Your task to perform on an android device: Go to network settings Image 0: 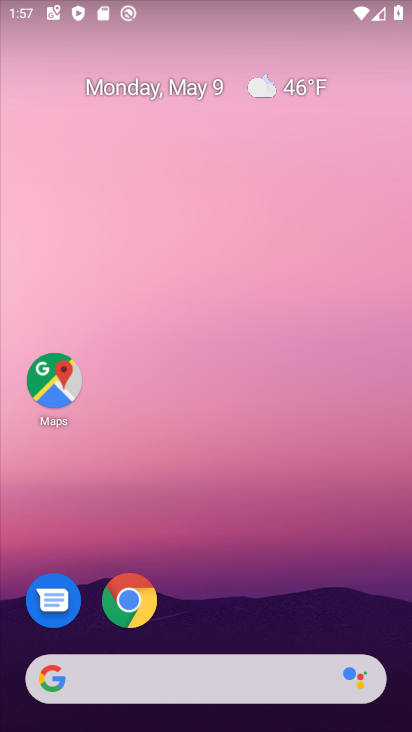
Step 0: drag from (195, 622) to (241, 150)
Your task to perform on an android device: Go to network settings Image 1: 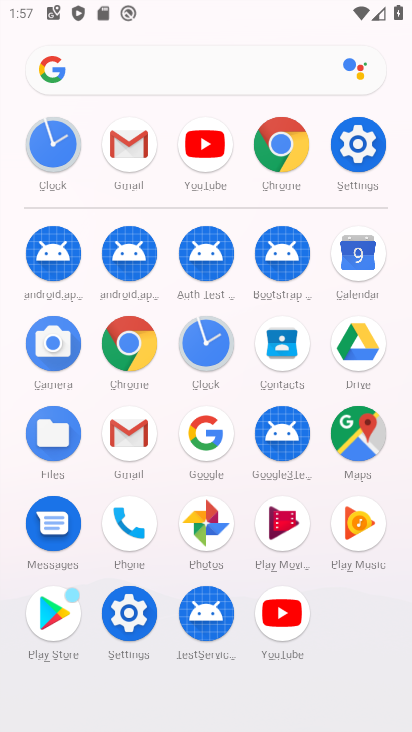
Step 1: click (350, 165)
Your task to perform on an android device: Go to network settings Image 2: 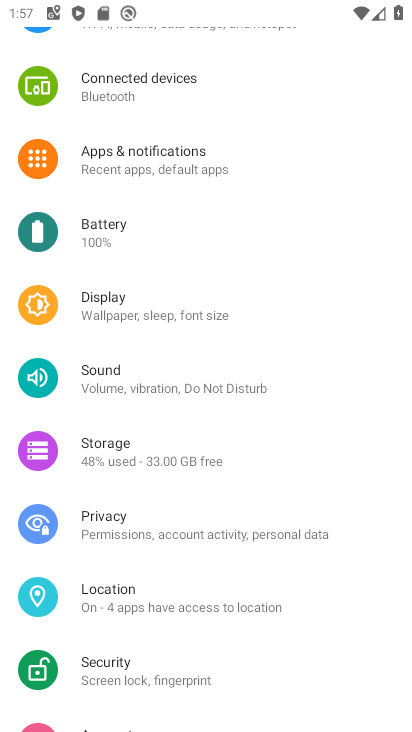
Step 2: drag from (261, 133) to (210, 710)
Your task to perform on an android device: Go to network settings Image 3: 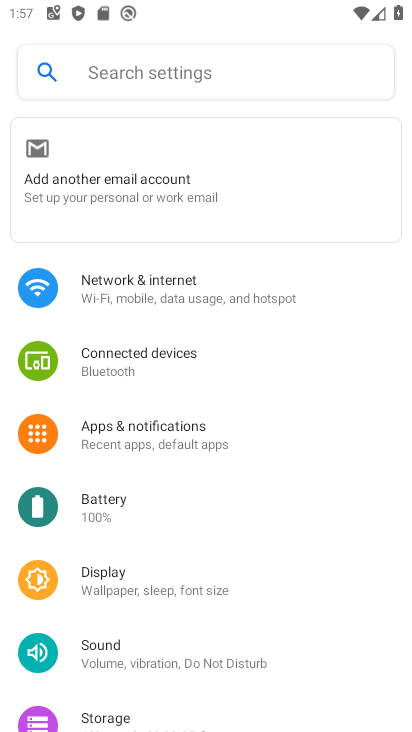
Step 3: click (154, 300)
Your task to perform on an android device: Go to network settings Image 4: 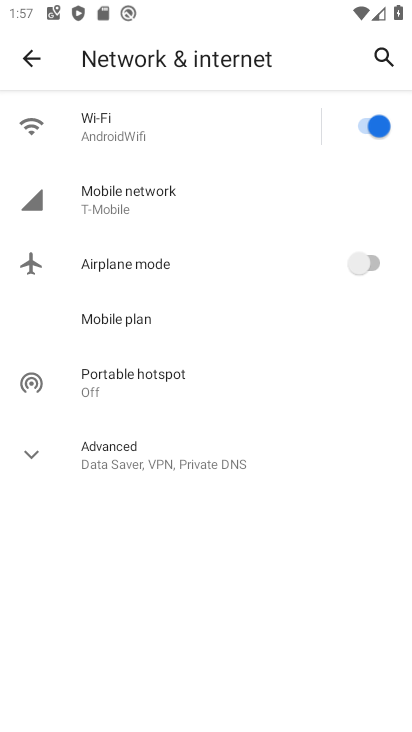
Step 4: click (126, 207)
Your task to perform on an android device: Go to network settings Image 5: 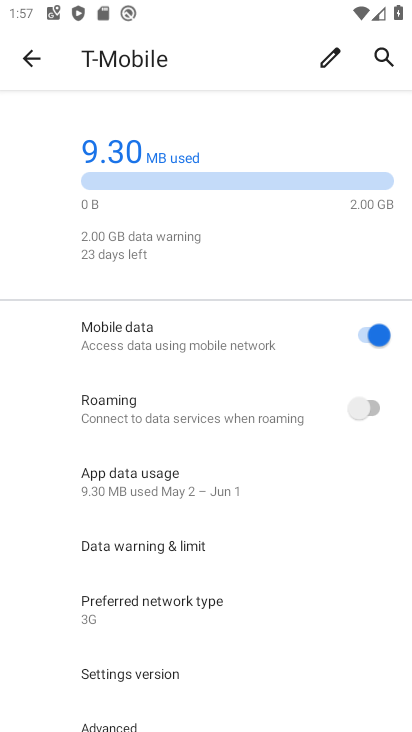
Step 5: task complete